Your task to perform on an android device: add a contact Image 0: 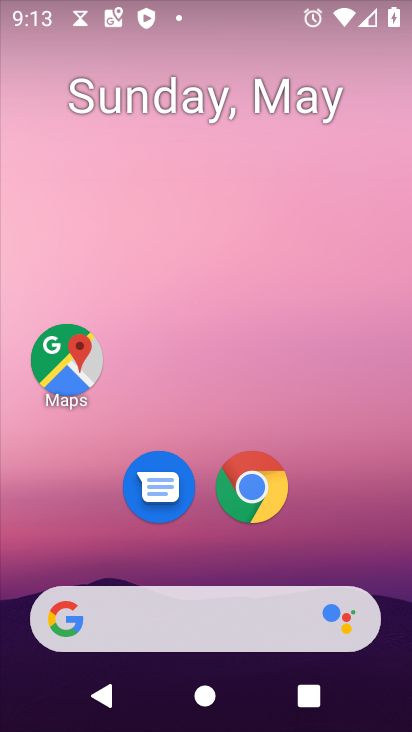
Step 0: drag from (347, 434) to (399, 93)
Your task to perform on an android device: add a contact Image 1: 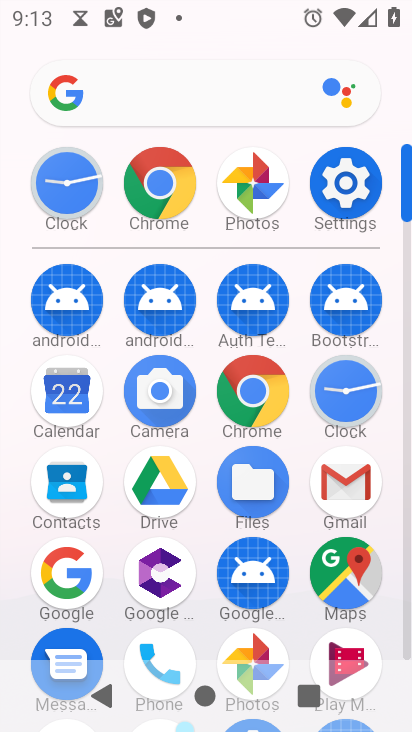
Step 1: drag from (400, 609) to (374, 252)
Your task to perform on an android device: add a contact Image 2: 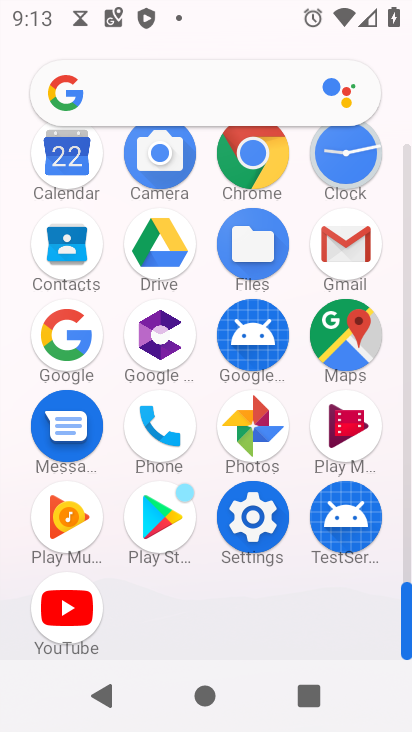
Step 2: click (172, 422)
Your task to perform on an android device: add a contact Image 3: 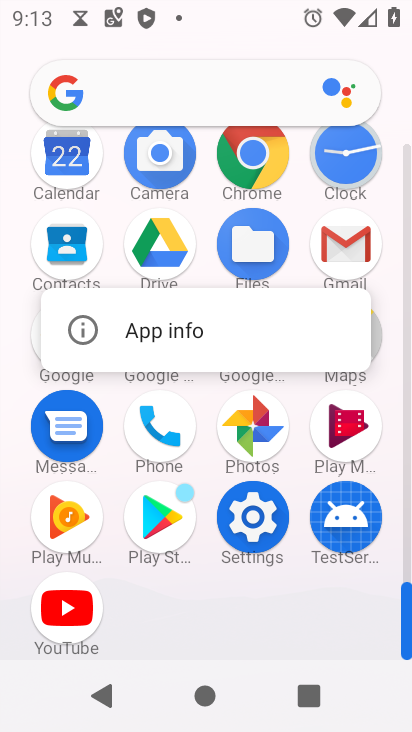
Step 3: click (172, 422)
Your task to perform on an android device: add a contact Image 4: 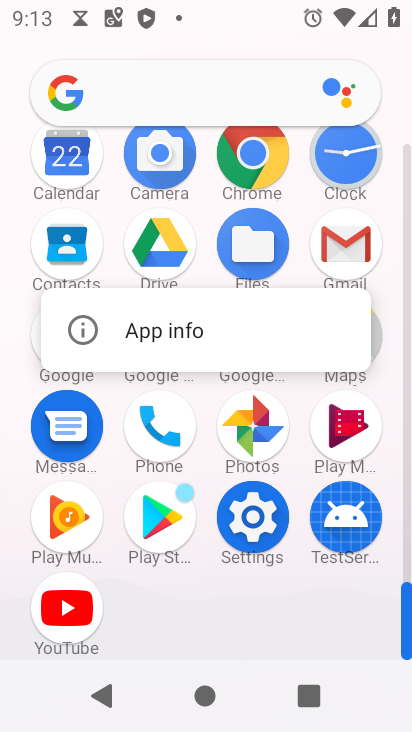
Step 4: click (157, 430)
Your task to perform on an android device: add a contact Image 5: 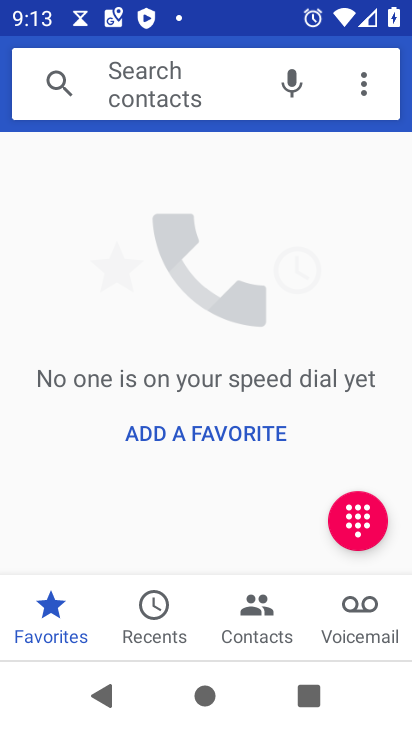
Step 5: click (250, 633)
Your task to perform on an android device: add a contact Image 6: 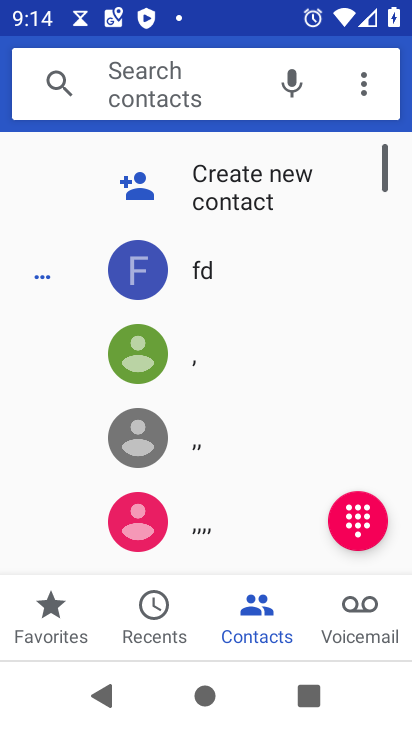
Step 6: click (197, 187)
Your task to perform on an android device: add a contact Image 7: 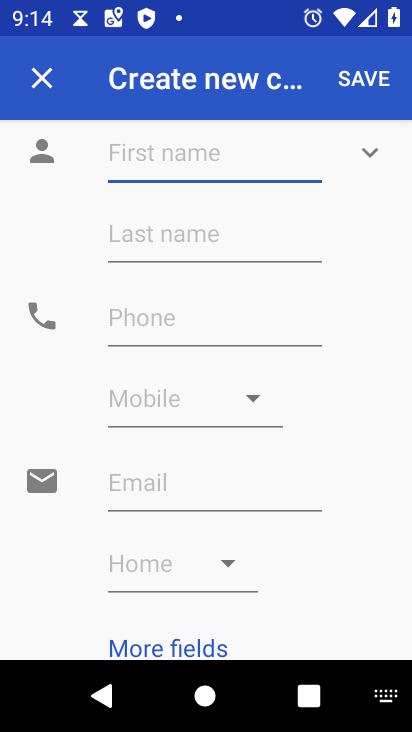
Step 7: type "yyyy"
Your task to perform on an android device: add a contact Image 8: 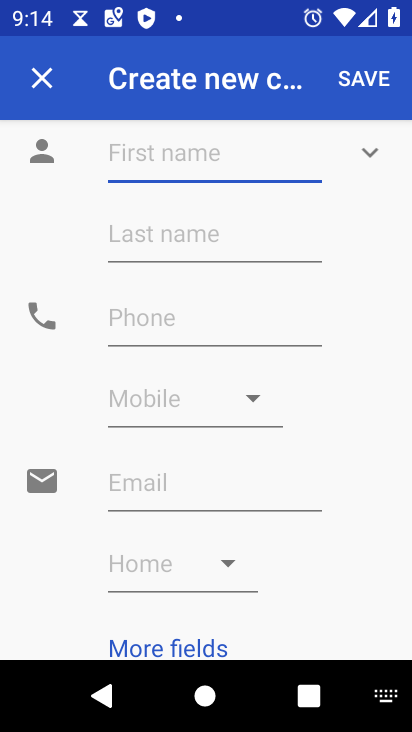
Step 8: click (162, 326)
Your task to perform on an android device: add a contact Image 9: 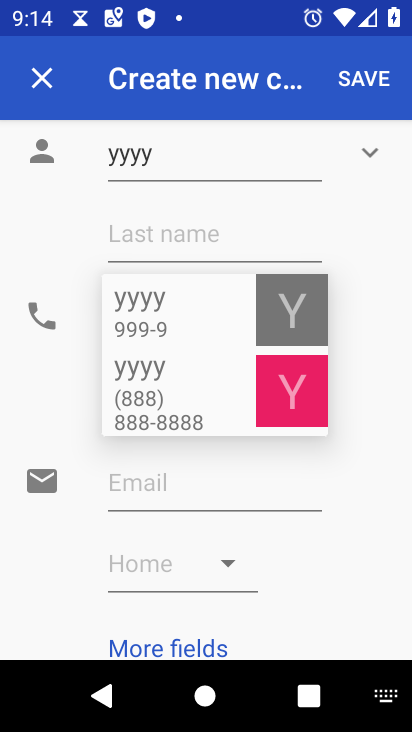
Step 9: type "5666666"
Your task to perform on an android device: add a contact Image 10: 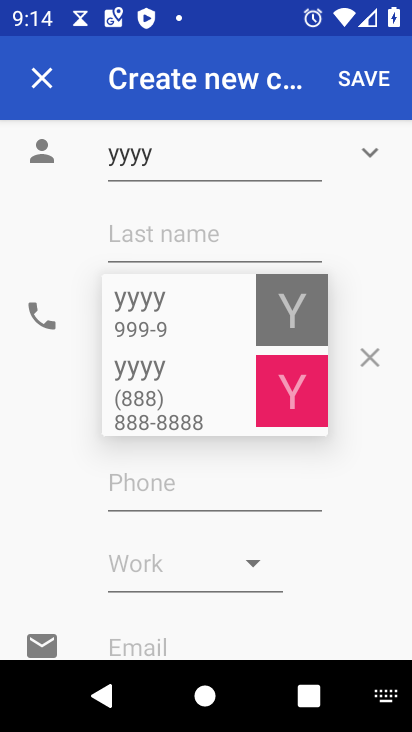
Step 10: click (363, 82)
Your task to perform on an android device: add a contact Image 11: 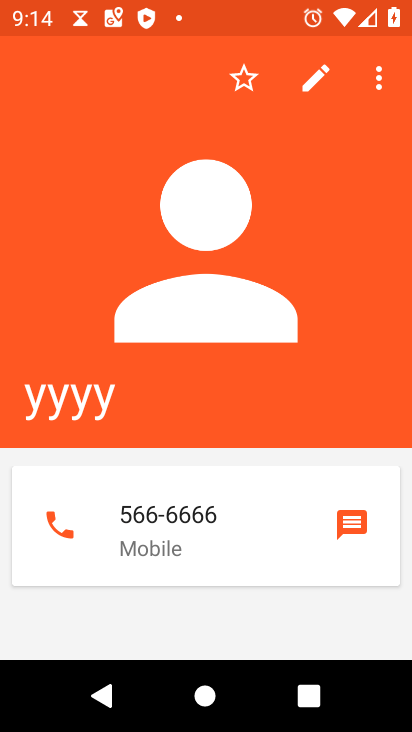
Step 11: task complete